Your task to perform on an android device: search for starred emails in the gmail app Image 0: 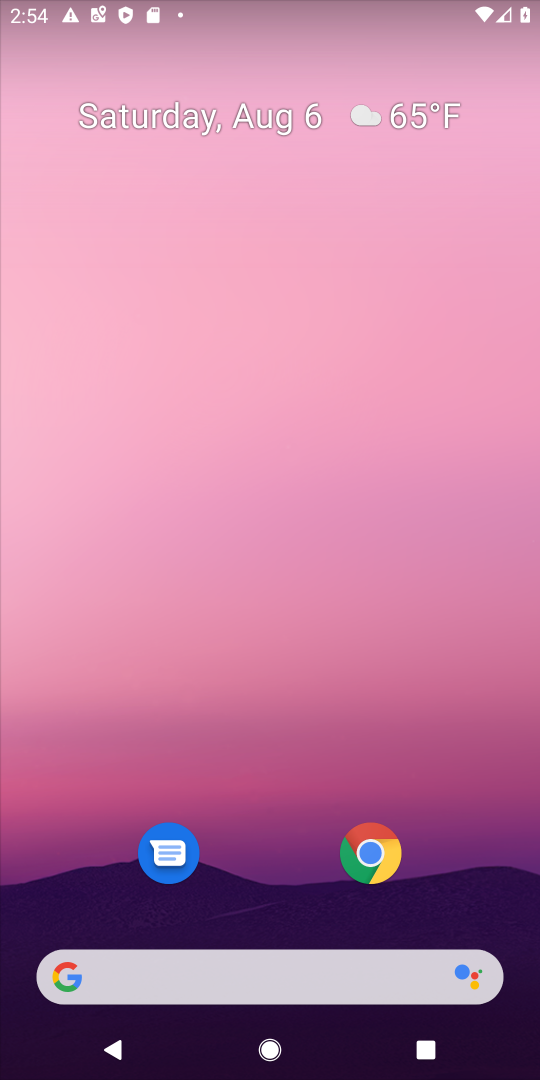
Step 0: drag from (281, 787) to (381, 214)
Your task to perform on an android device: search for starred emails in the gmail app Image 1: 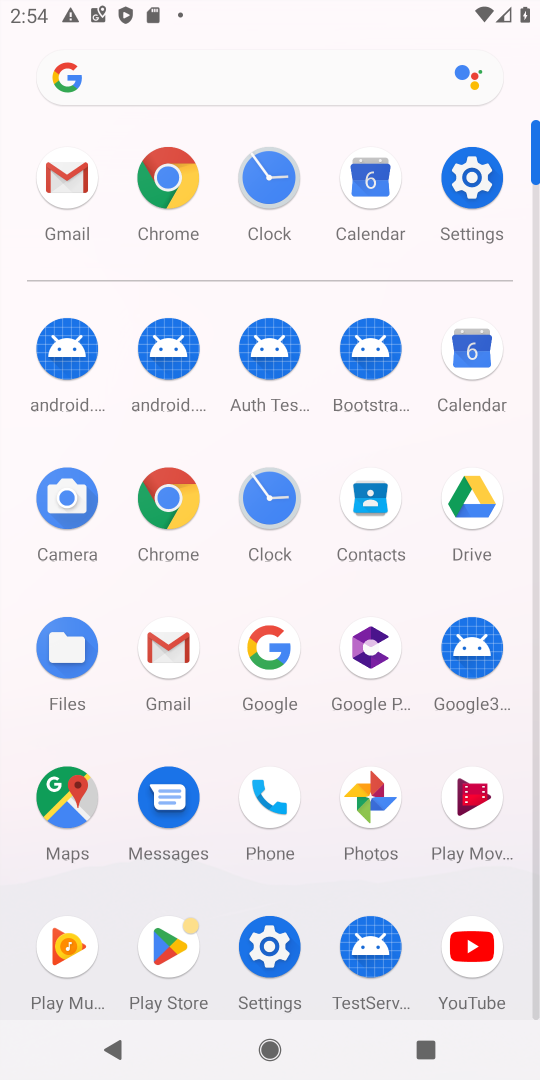
Step 1: click (70, 175)
Your task to perform on an android device: search for starred emails in the gmail app Image 2: 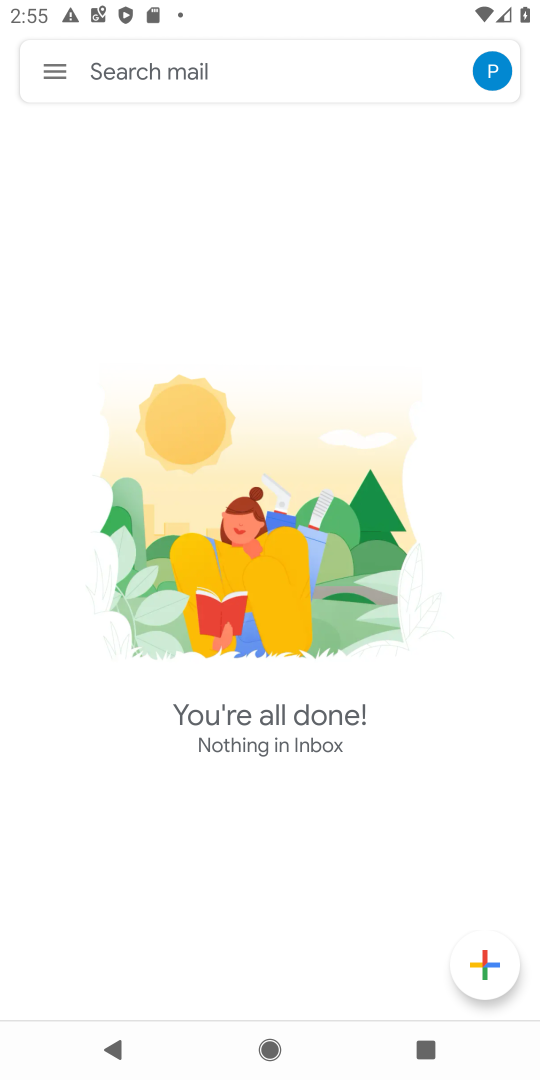
Step 2: click (52, 83)
Your task to perform on an android device: search for starred emails in the gmail app Image 3: 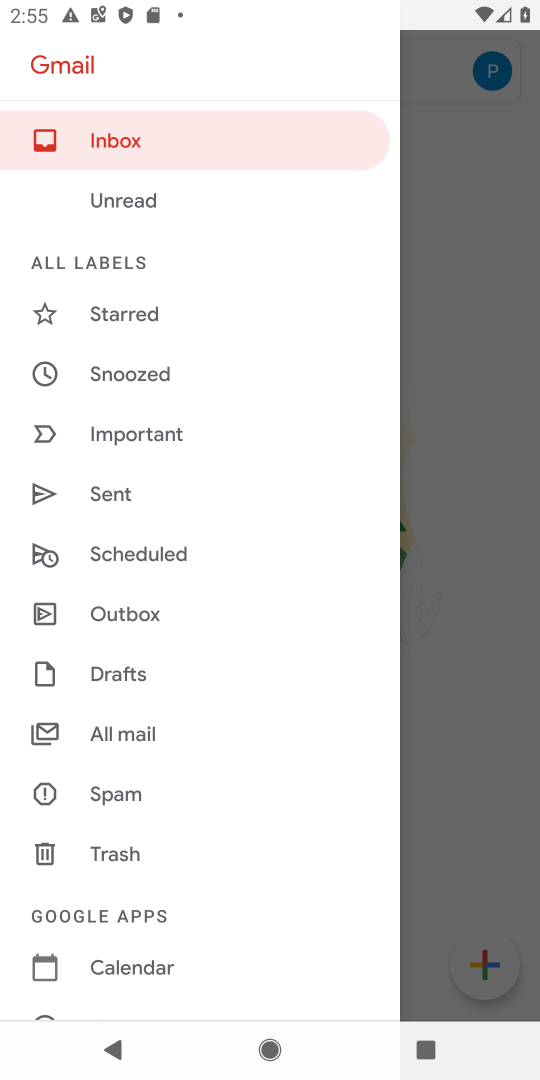
Step 3: click (133, 301)
Your task to perform on an android device: search for starred emails in the gmail app Image 4: 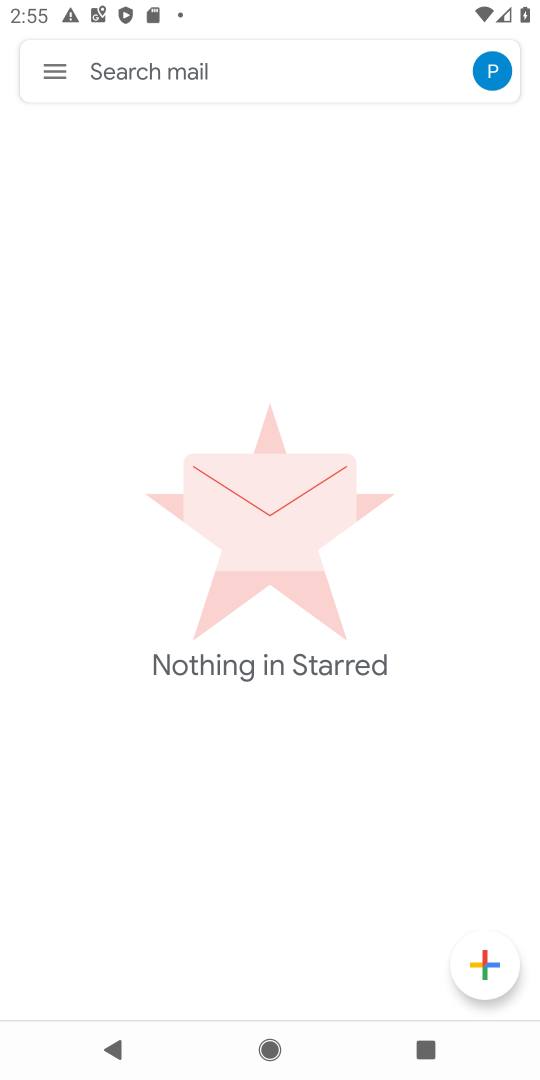
Step 4: task complete